Your task to perform on an android device: turn on the 12-hour format for clock Image 0: 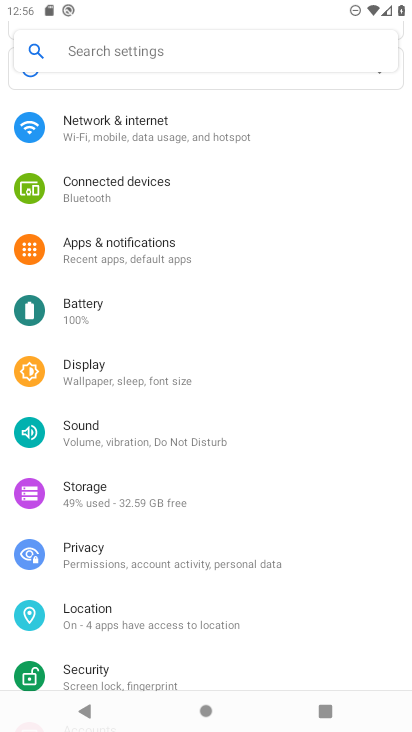
Step 0: press home button
Your task to perform on an android device: turn on the 12-hour format for clock Image 1: 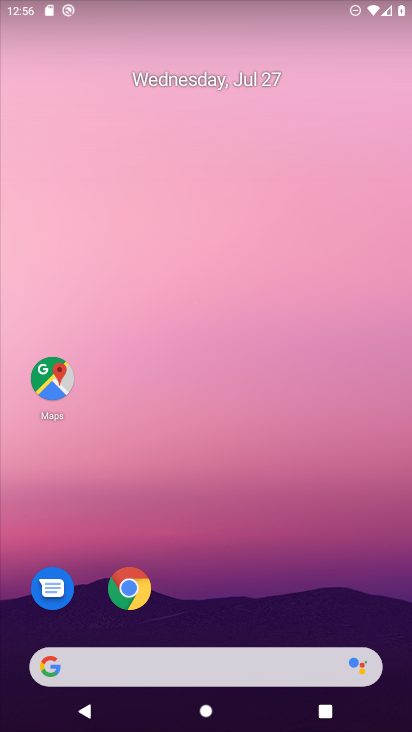
Step 1: drag from (67, 615) to (174, 49)
Your task to perform on an android device: turn on the 12-hour format for clock Image 2: 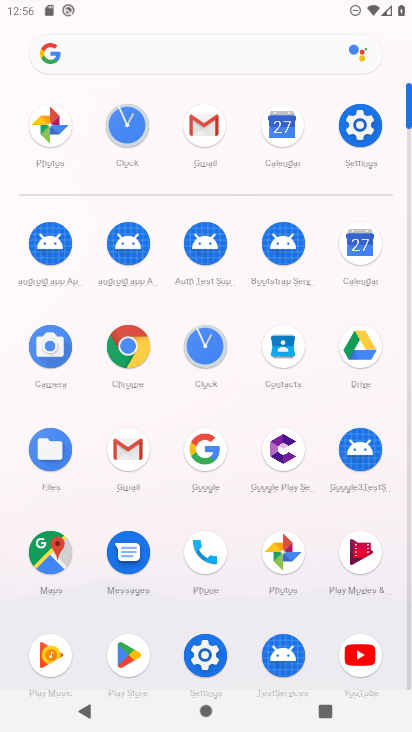
Step 2: click (208, 352)
Your task to perform on an android device: turn on the 12-hour format for clock Image 3: 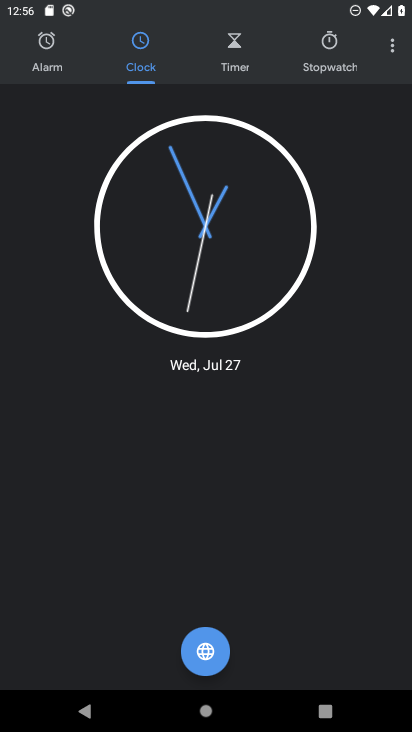
Step 3: click (389, 50)
Your task to perform on an android device: turn on the 12-hour format for clock Image 4: 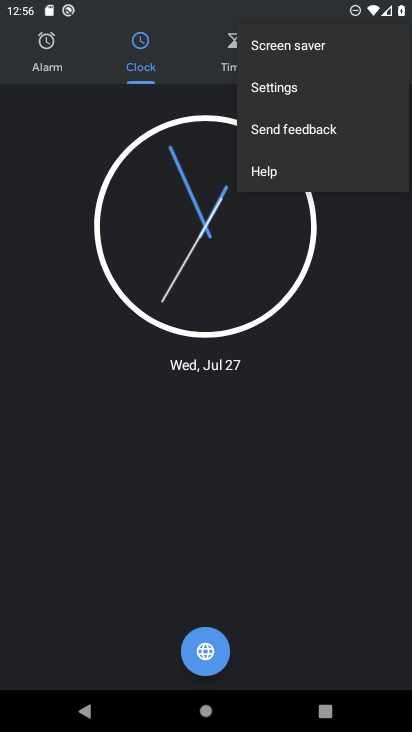
Step 4: click (289, 91)
Your task to perform on an android device: turn on the 12-hour format for clock Image 5: 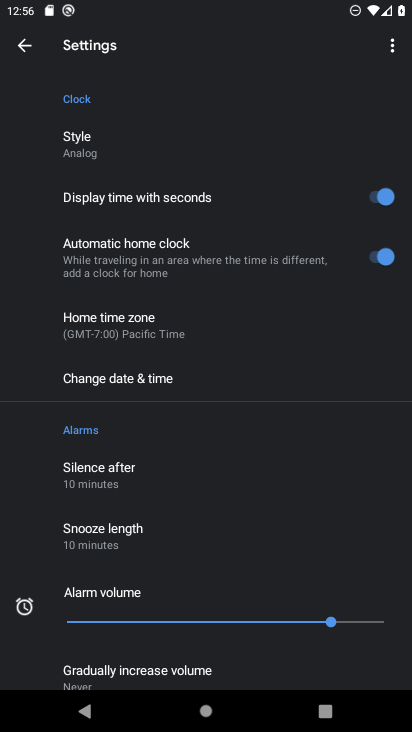
Step 5: click (142, 373)
Your task to perform on an android device: turn on the 12-hour format for clock Image 6: 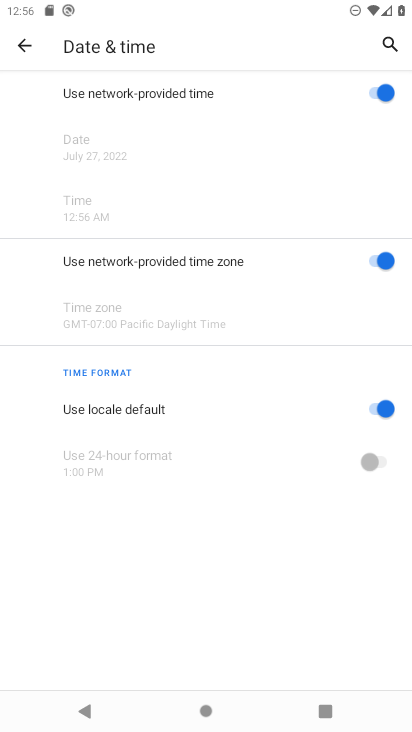
Step 6: click (390, 404)
Your task to perform on an android device: turn on the 12-hour format for clock Image 7: 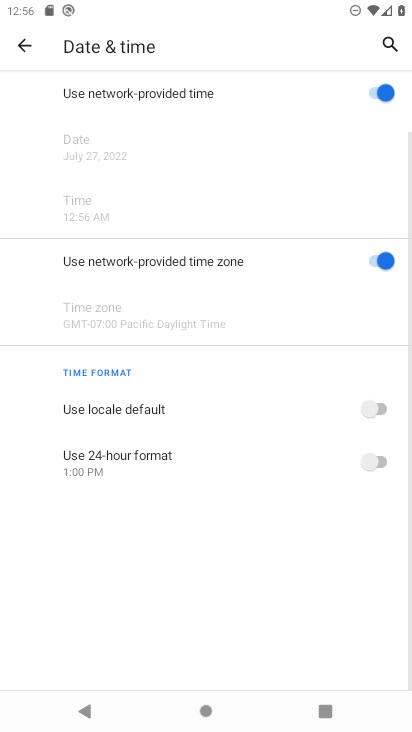
Step 7: click (375, 456)
Your task to perform on an android device: turn on the 12-hour format for clock Image 8: 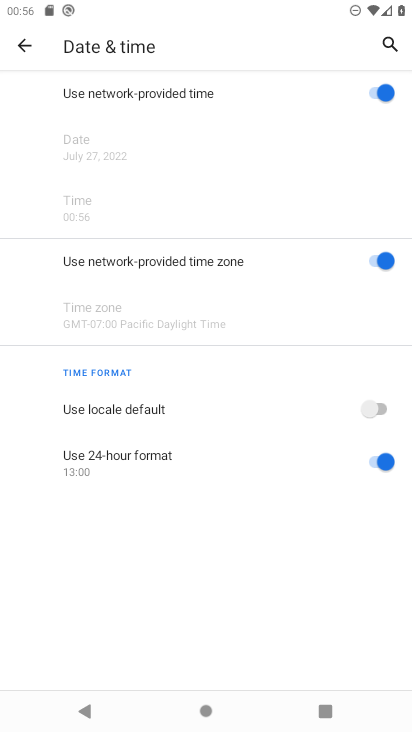
Step 8: task complete